Your task to perform on an android device: Go to internet settings Image 0: 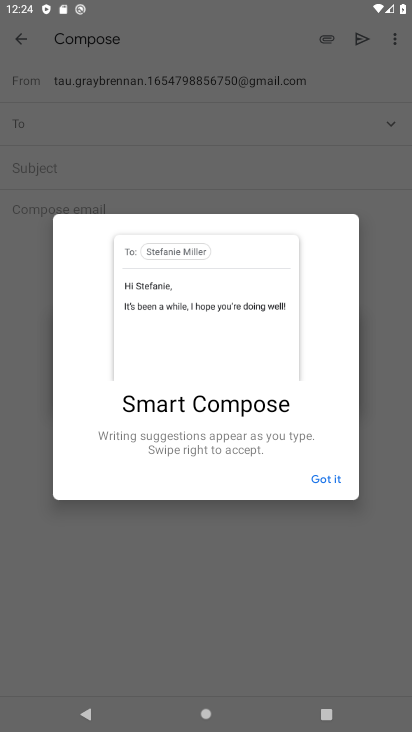
Step 0: click (332, 489)
Your task to perform on an android device: Go to internet settings Image 1: 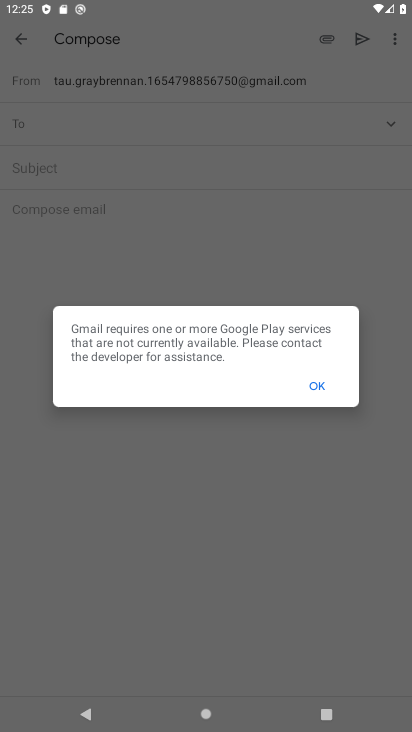
Step 1: press home button
Your task to perform on an android device: Go to internet settings Image 2: 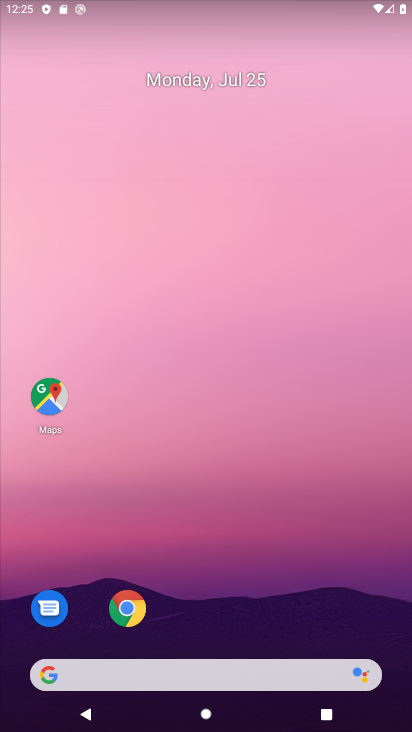
Step 2: drag from (221, 539) to (320, 82)
Your task to perform on an android device: Go to internet settings Image 3: 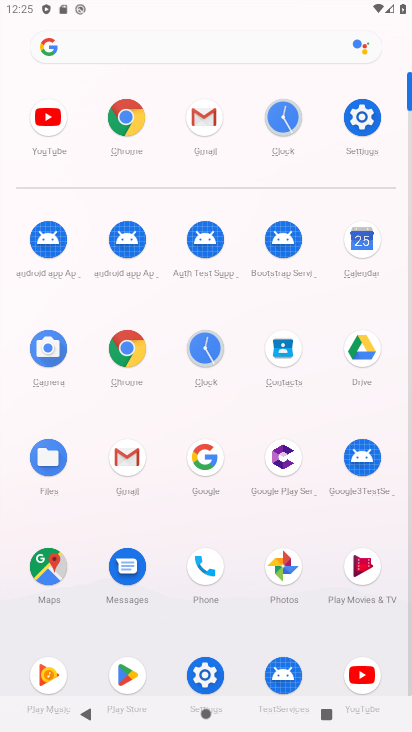
Step 3: click (207, 674)
Your task to perform on an android device: Go to internet settings Image 4: 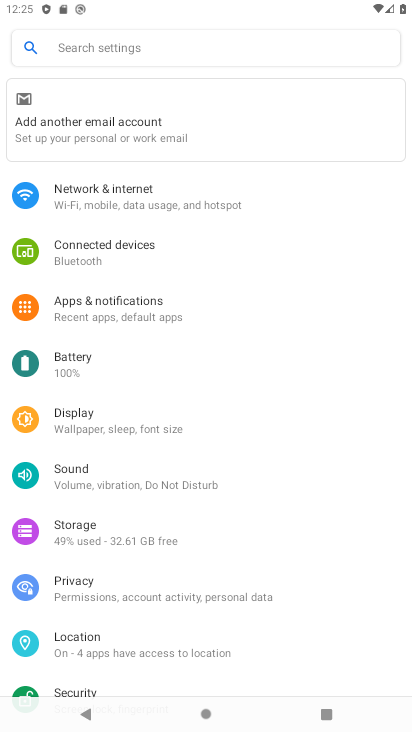
Step 4: click (173, 203)
Your task to perform on an android device: Go to internet settings Image 5: 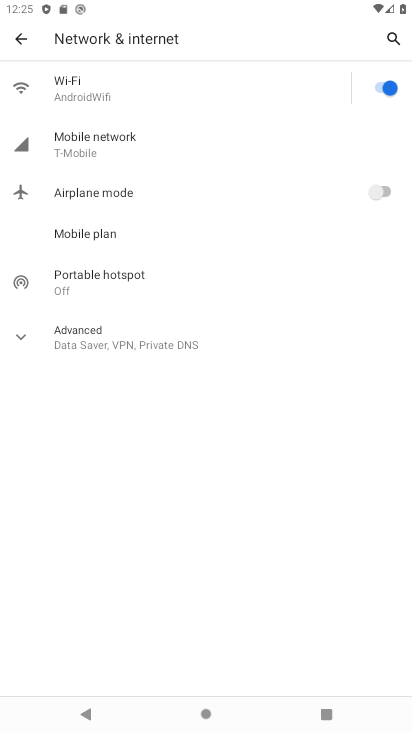
Step 5: click (224, 149)
Your task to perform on an android device: Go to internet settings Image 6: 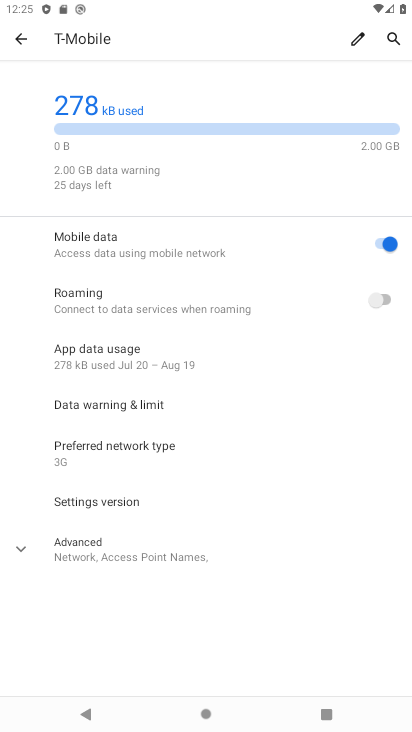
Step 6: task complete